Your task to perform on an android device: uninstall "Mercado Libre" Image 0: 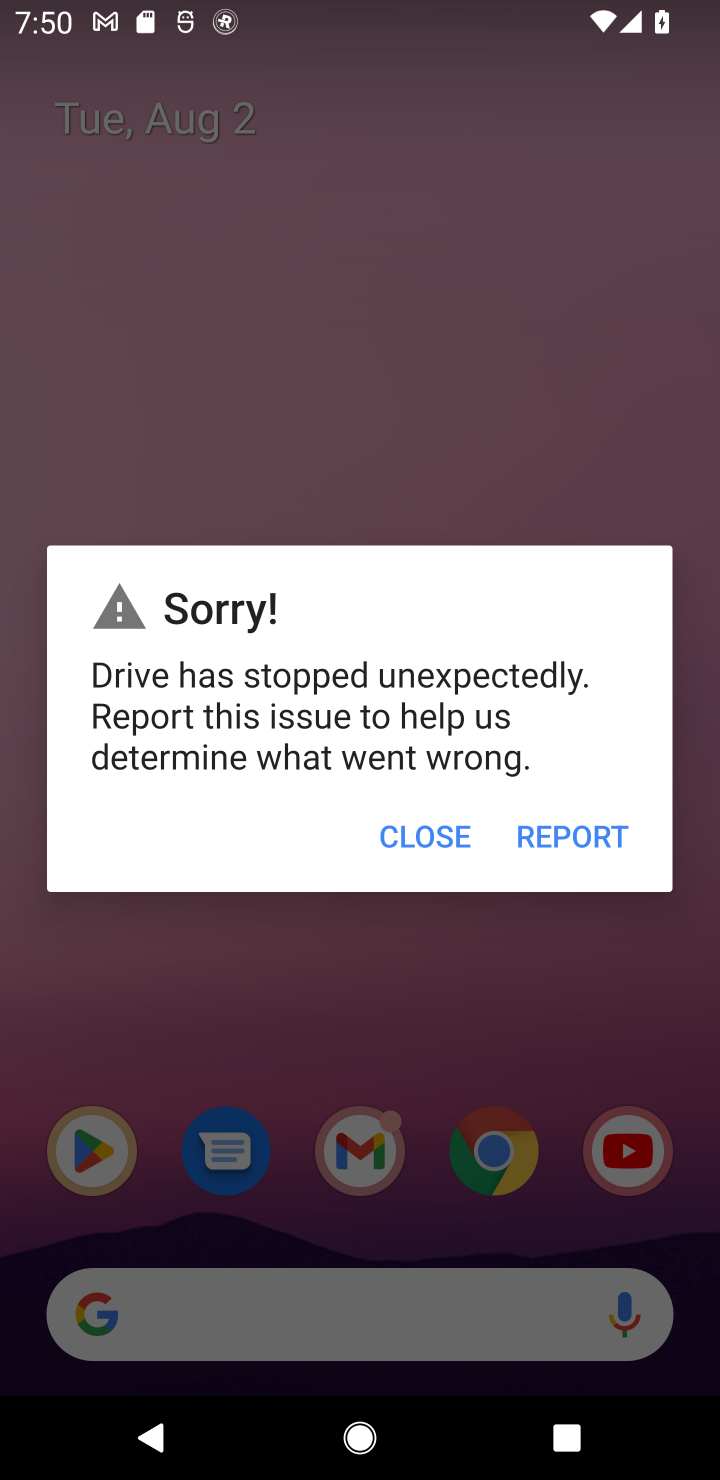
Step 0: press back button
Your task to perform on an android device: uninstall "Mercado Libre" Image 1: 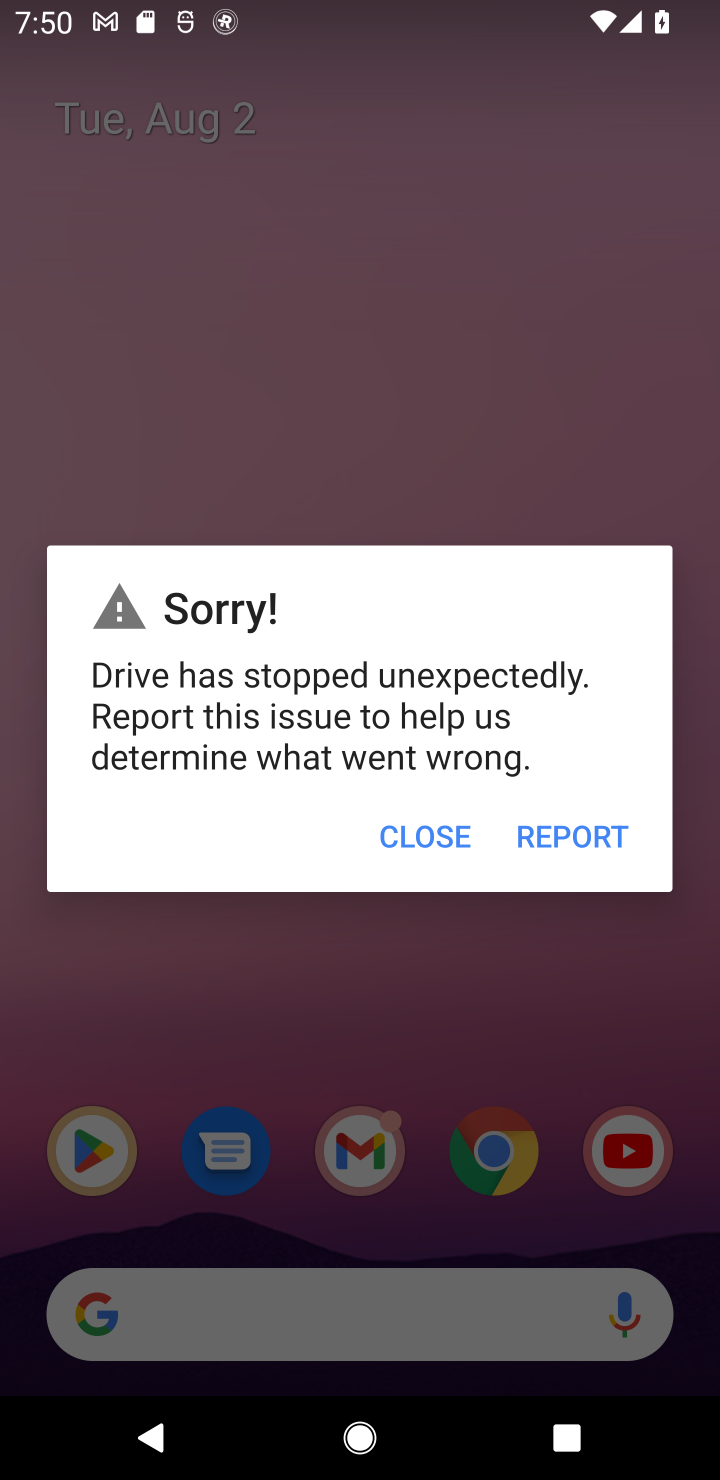
Step 1: press back button
Your task to perform on an android device: uninstall "Mercado Libre" Image 2: 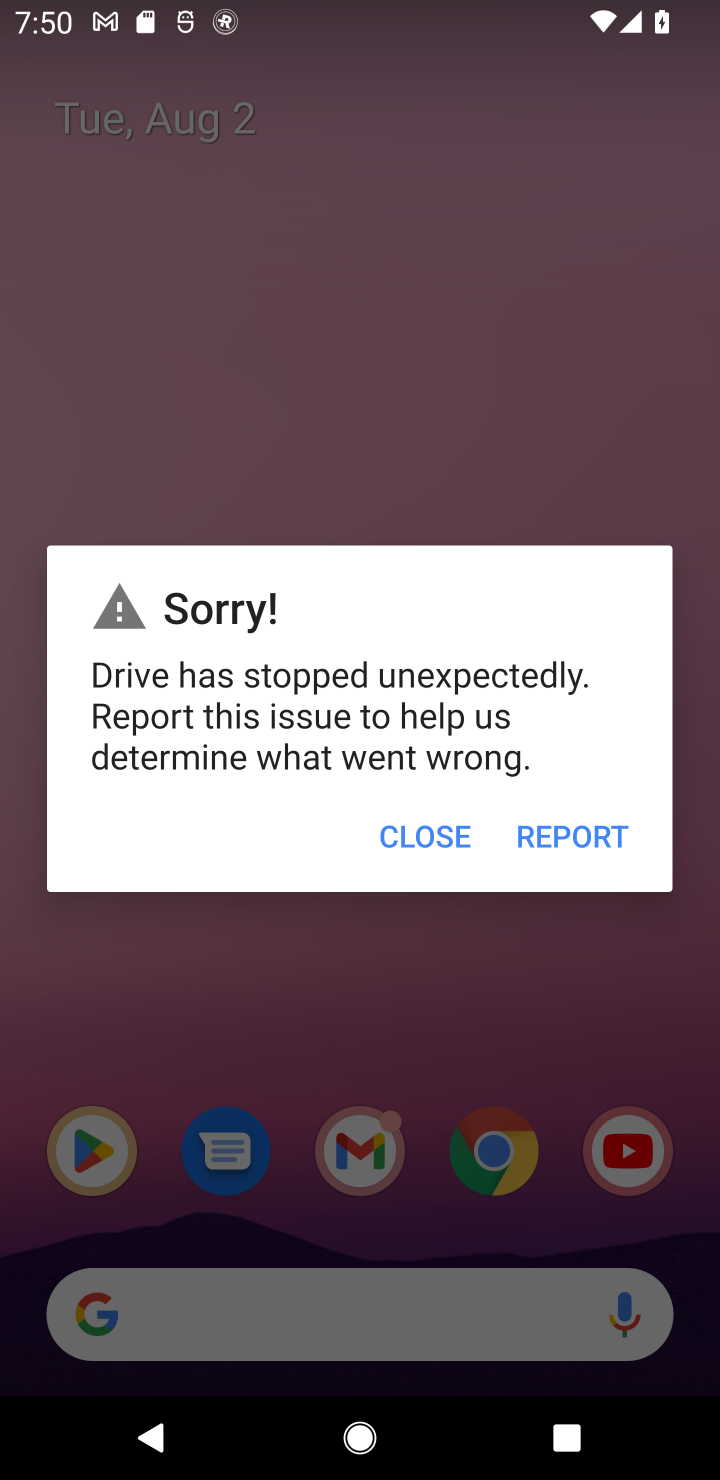
Step 2: press back button
Your task to perform on an android device: uninstall "Mercado Libre" Image 3: 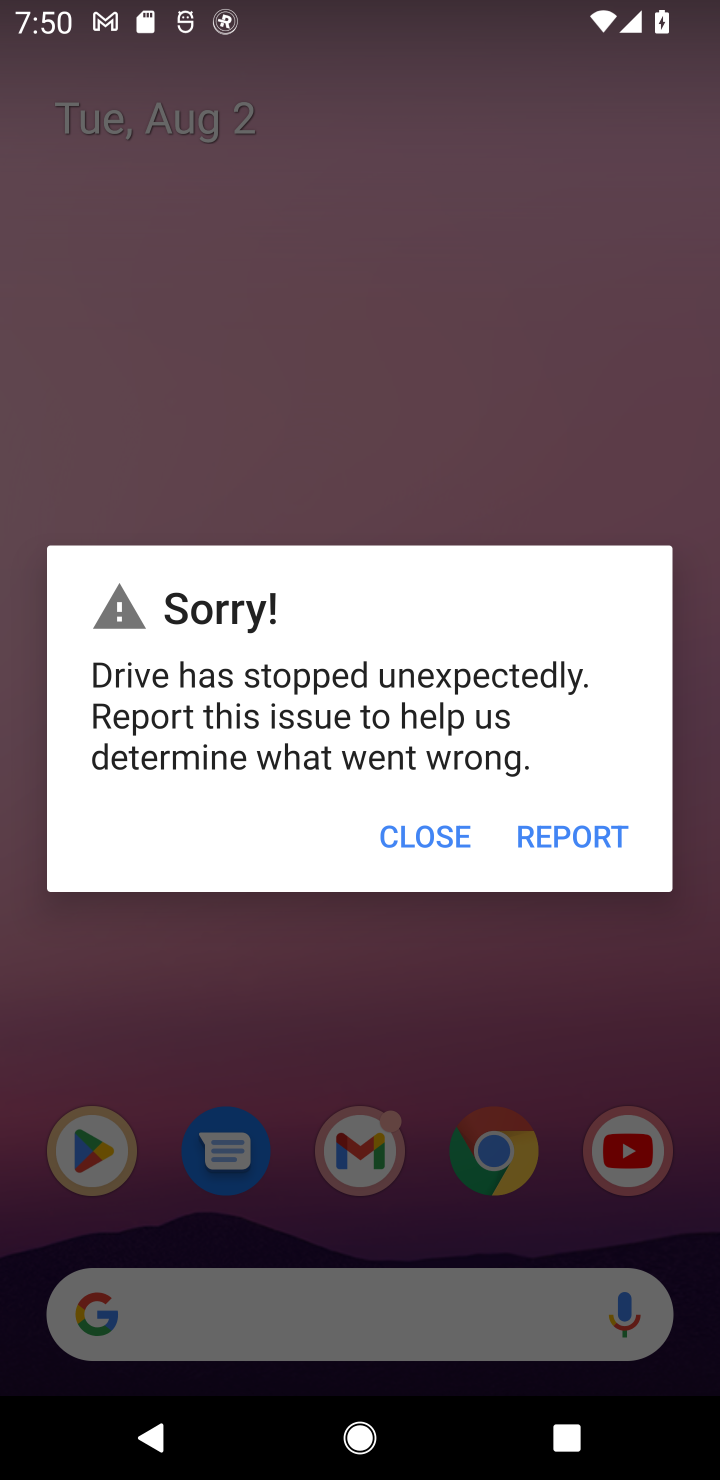
Step 3: press home button
Your task to perform on an android device: uninstall "Mercado Libre" Image 4: 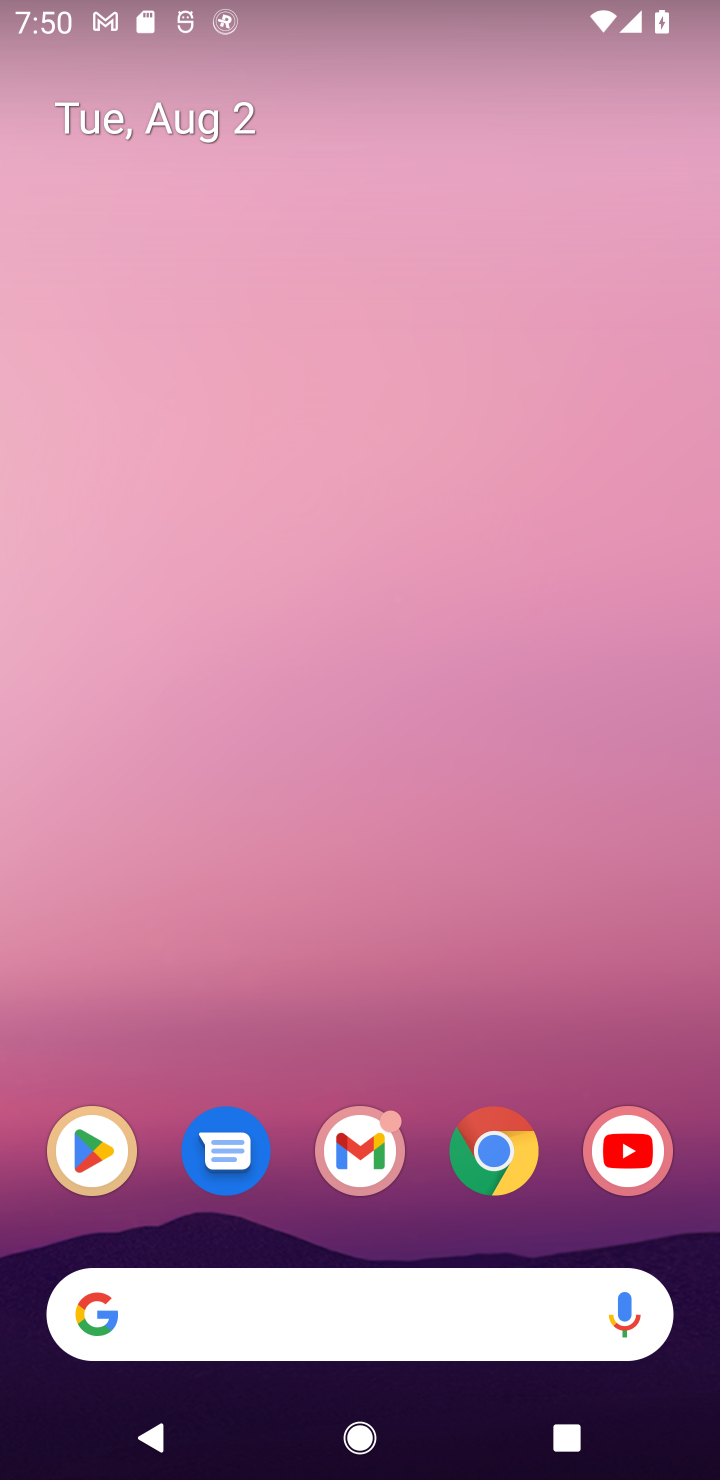
Step 4: click (112, 1155)
Your task to perform on an android device: uninstall "Mercado Libre" Image 5: 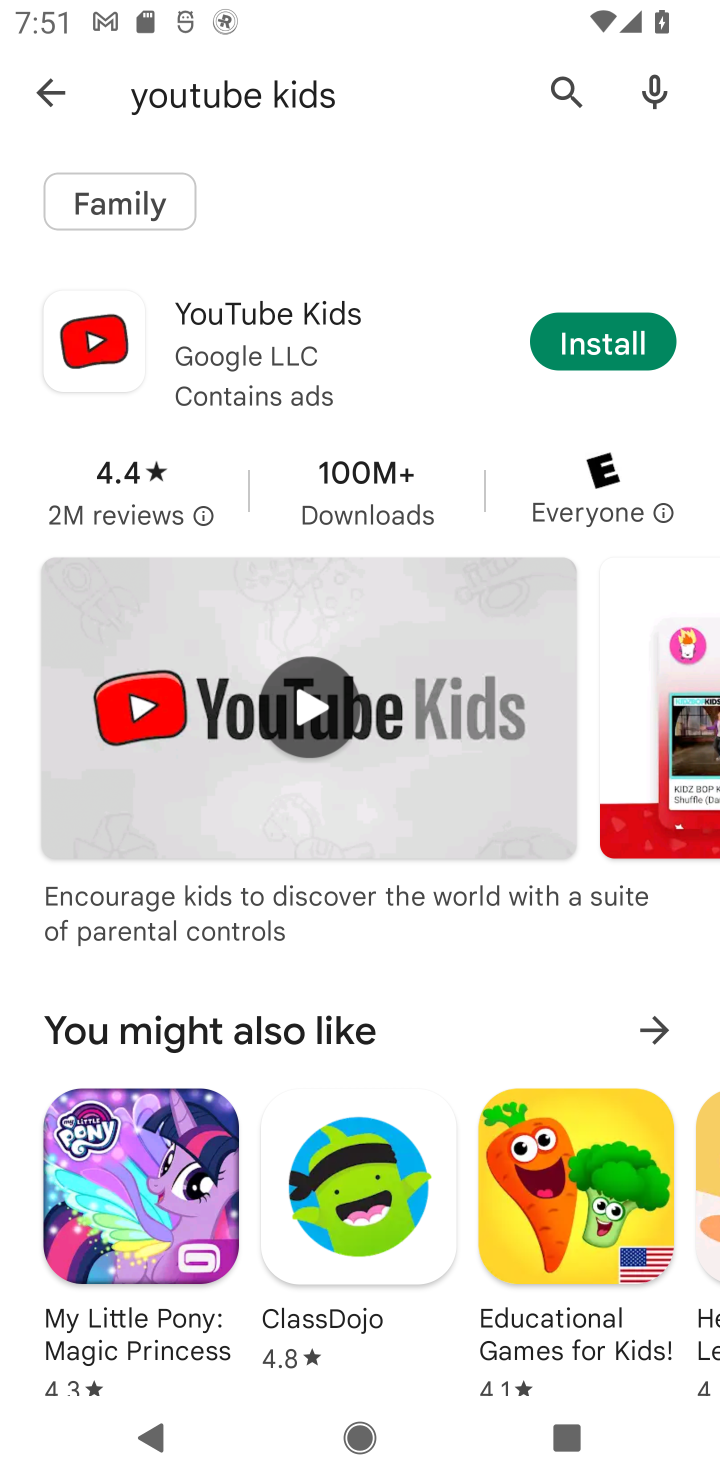
Step 5: click (567, 93)
Your task to perform on an android device: uninstall "Mercado Libre" Image 6: 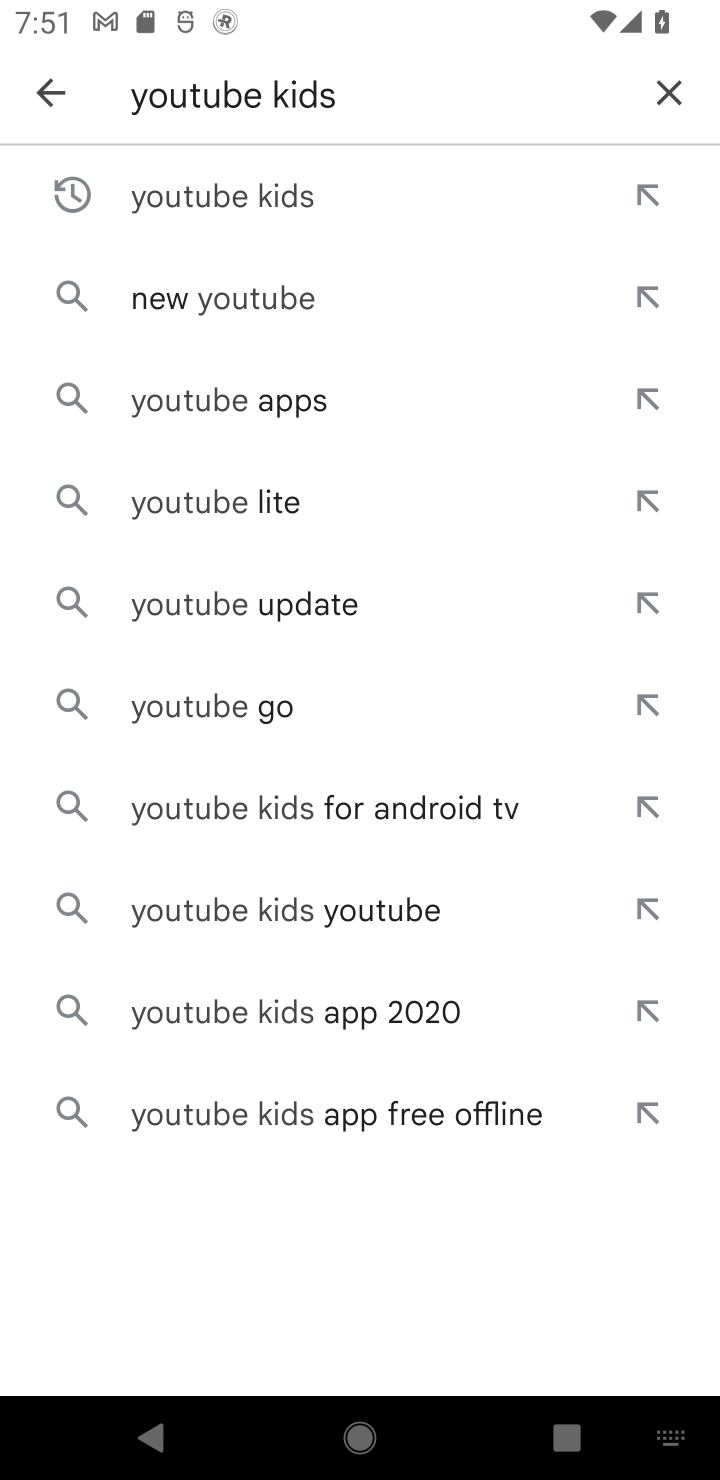
Step 6: click (676, 88)
Your task to perform on an android device: uninstall "Mercado Libre" Image 7: 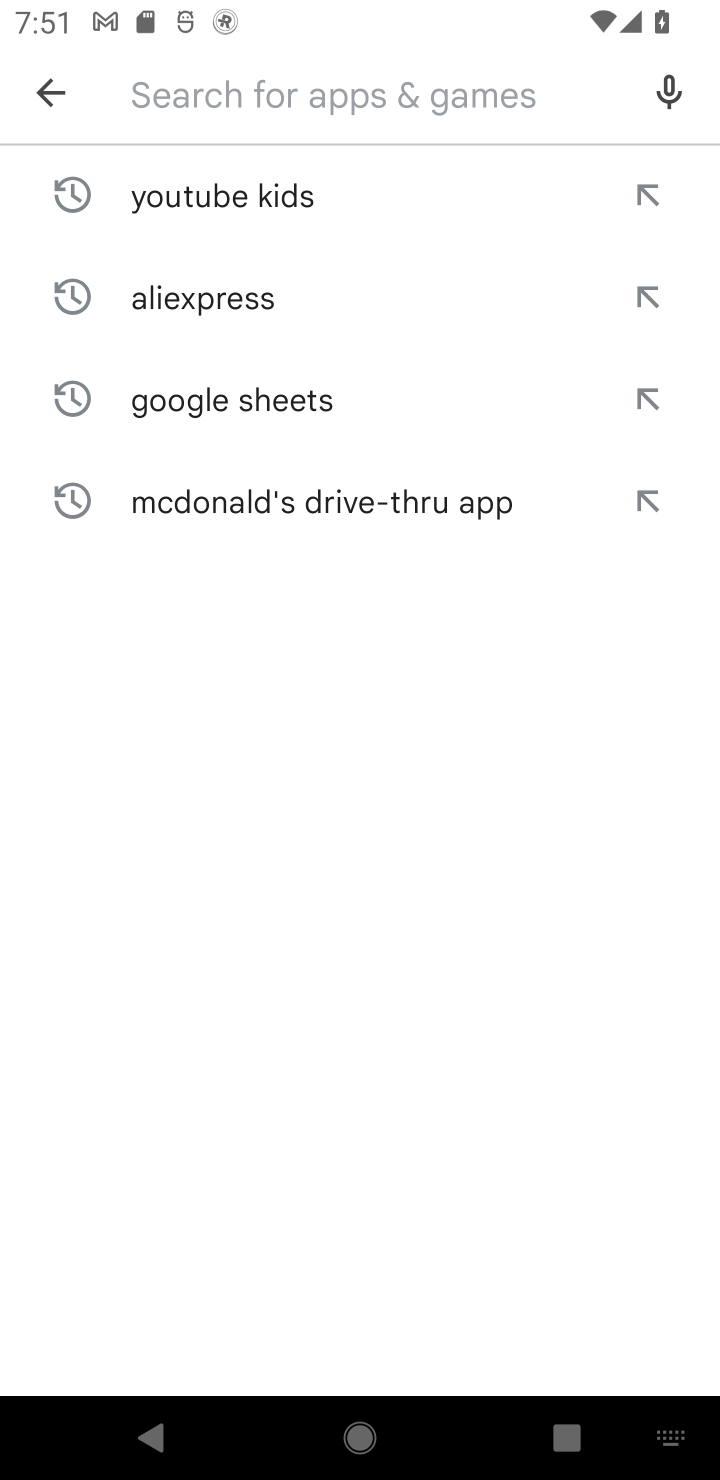
Step 7: type "Mercado Libre"
Your task to perform on an android device: uninstall "Mercado Libre" Image 8: 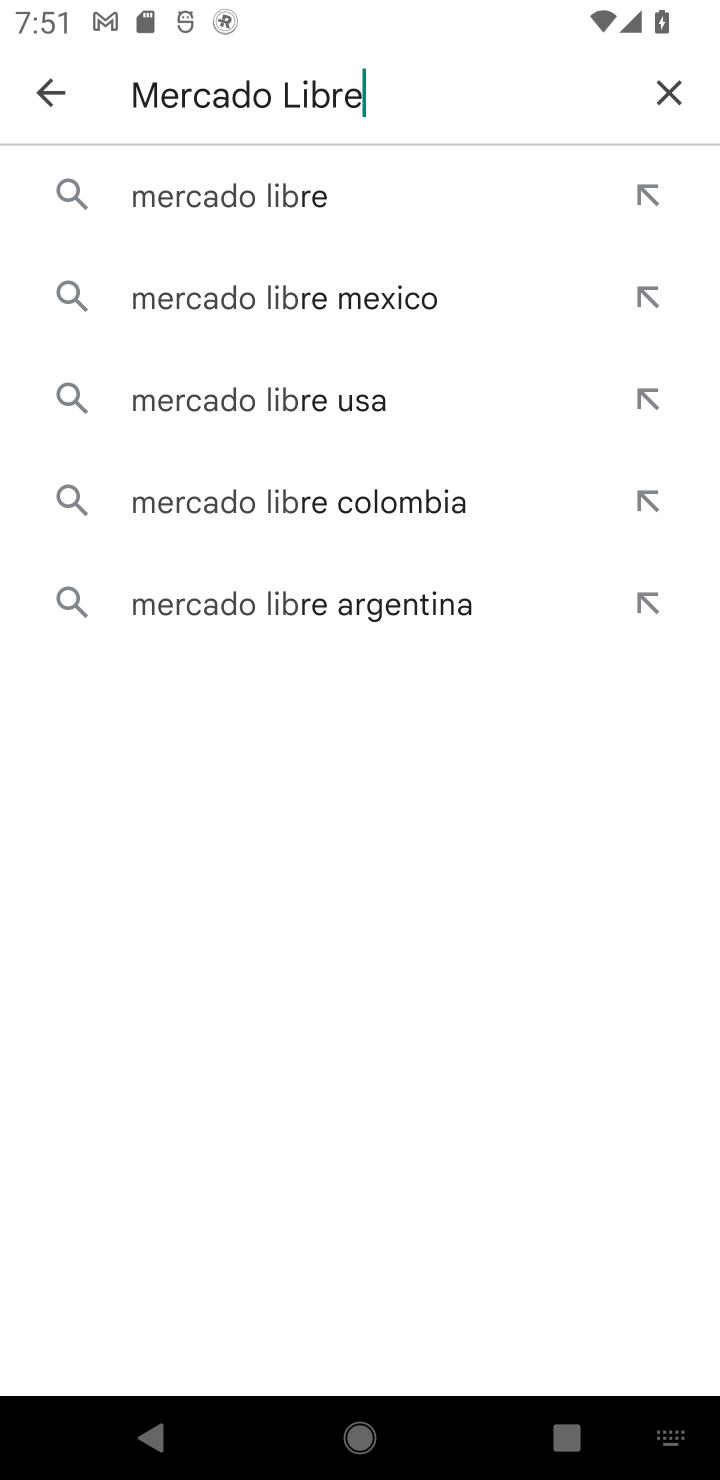
Step 8: type ""
Your task to perform on an android device: uninstall "Mercado Libre" Image 9: 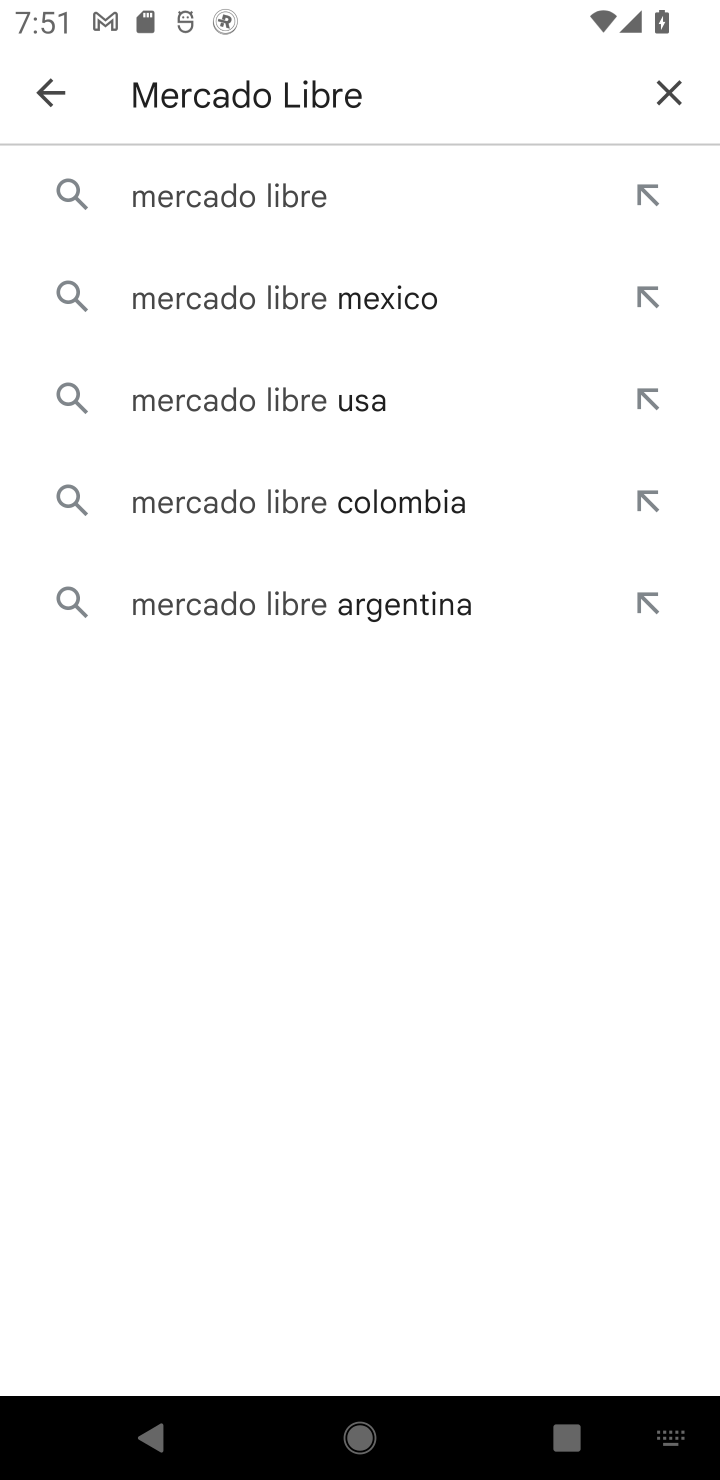
Step 9: click (260, 180)
Your task to perform on an android device: uninstall "Mercado Libre" Image 10: 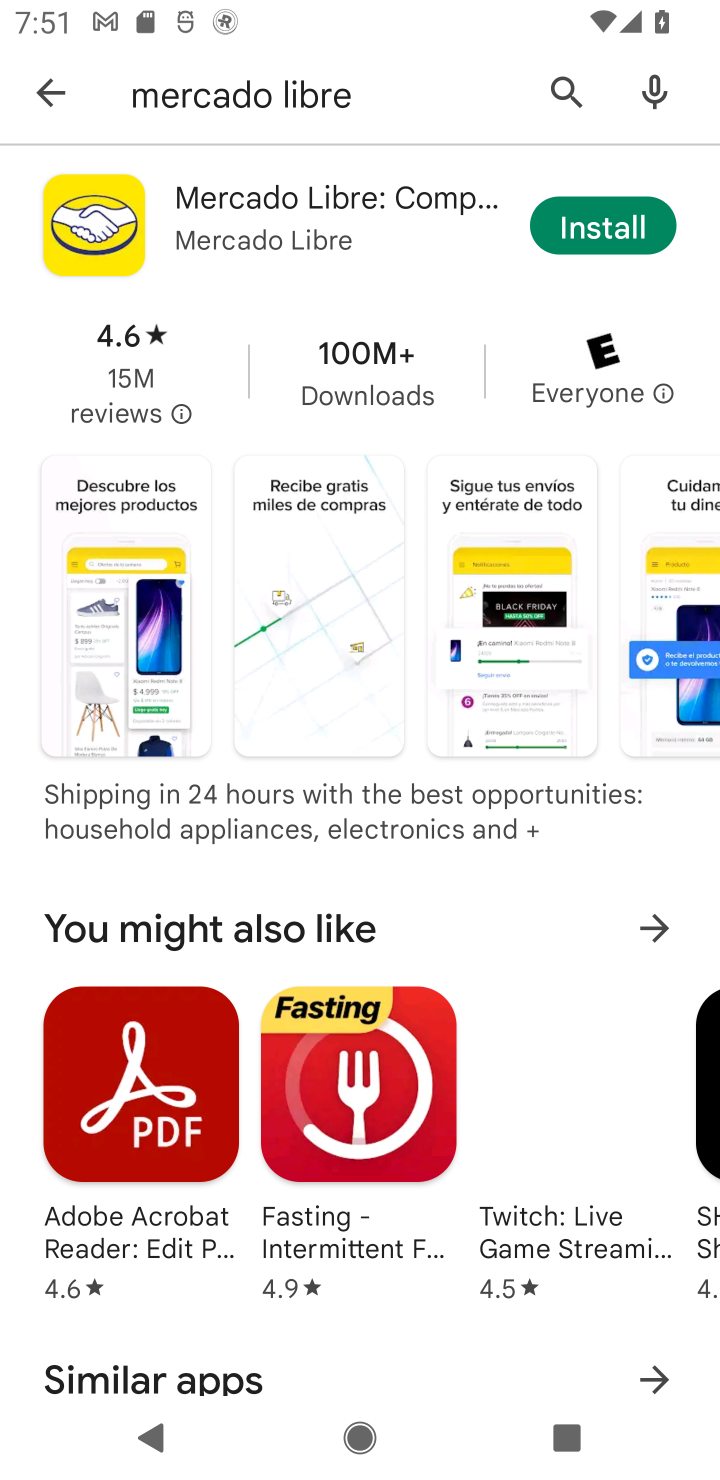
Step 10: task complete